Your task to perform on an android device: stop showing notifications on the lock screen Image 0: 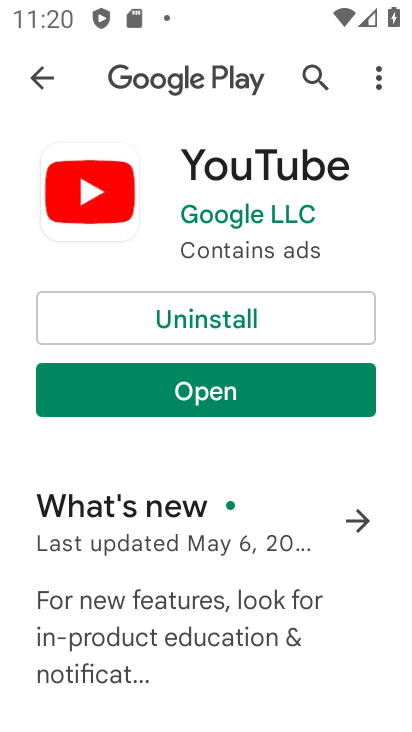
Step 0: press home button
Your task to perform on an android device: stop showing notifications on the lock screen Image 1: 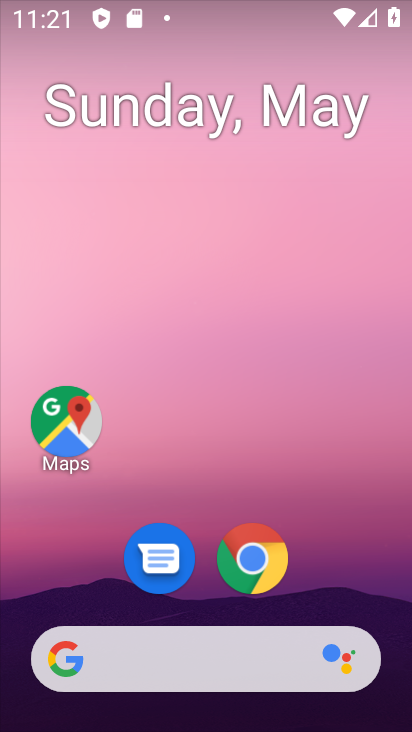
Step 1: drag from (370, 566) to (338, 135)
Your task to perform on an android device: stop showing notifications on the lock screen Image 2: 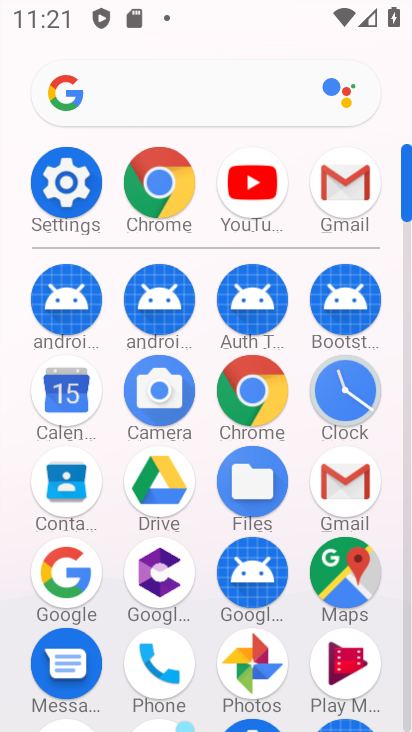
Step 2: click (71, 189)
Your task to perform on an android device: stop showing notifications on the lock screen Image 3: 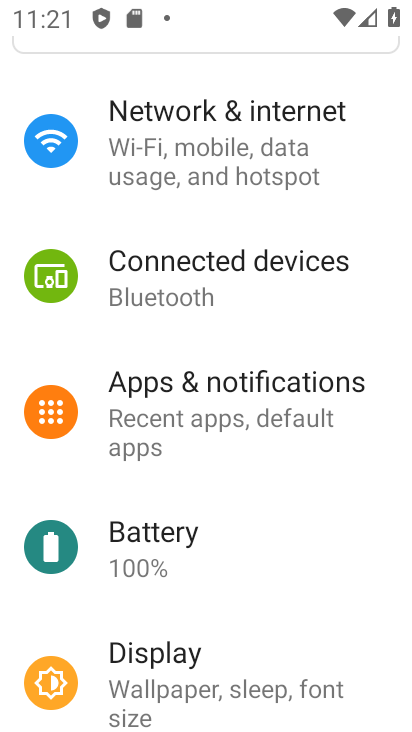
Step 3: click (196, 392)
Your task to perform on an android device: stop showing notifications on the lock screen Image 4: 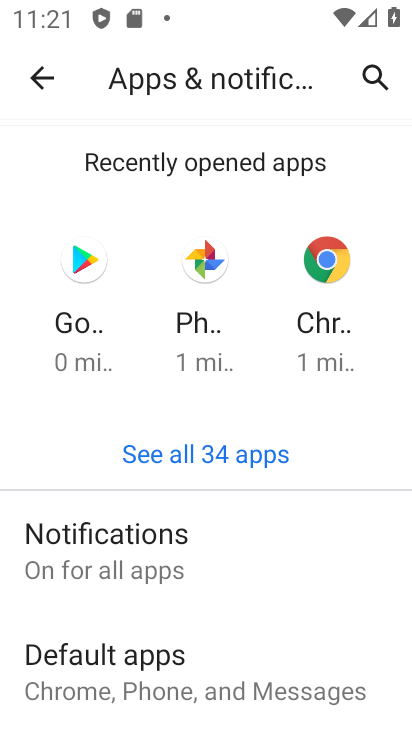
Step 4: click (128, 566)
Your task to perform on an android device: stop showing notifications on the lock screen Image 5: 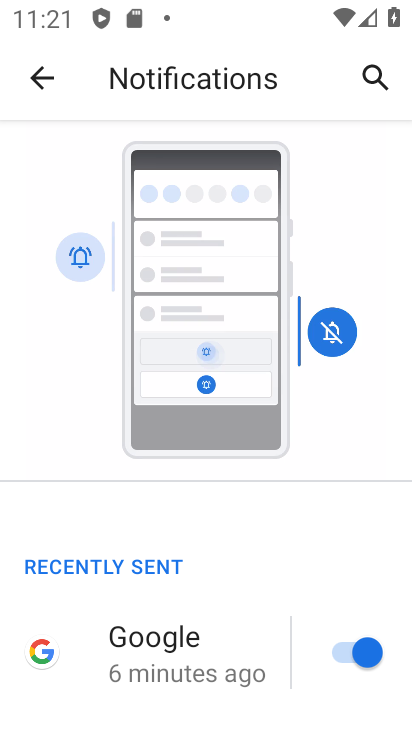
Step 5: drag from (263, 595) to (288, 443)
Your task to perform on an android device: stop showing notifications on the lock screen Image 6: 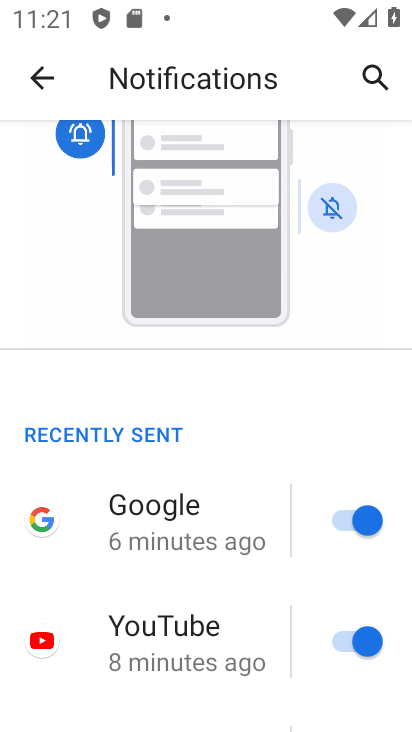
Step 6: drag from (286, 671) to (276, 469)
Your task to perform on an android device: stop showing notifications on the lock screen Image 7: 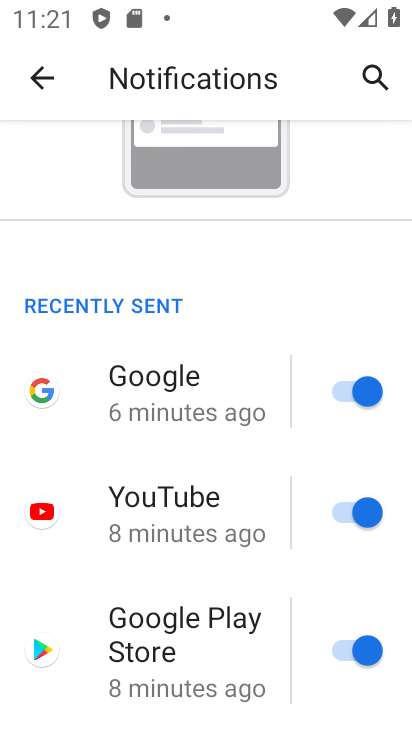
Step 7: drag from (263, 690) to (273, 483)
Your task to perform on an android device: stop showing notifications on the lock screen Image 8: 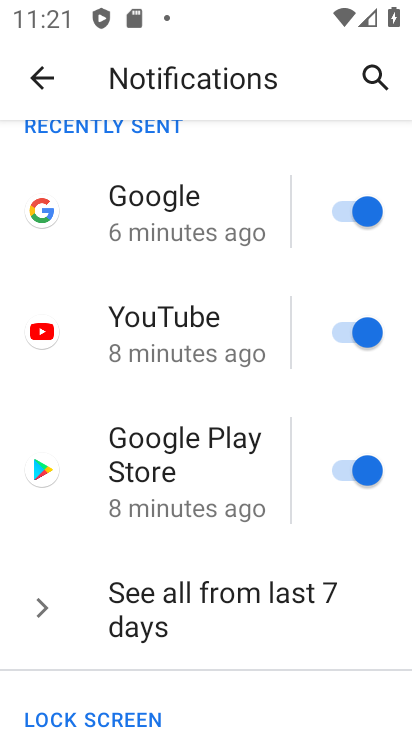
Step 8: drag from (282, 687) to (276, 468)
Your task to perform on an android device: stop showing notifications on the lock screen Image 9: 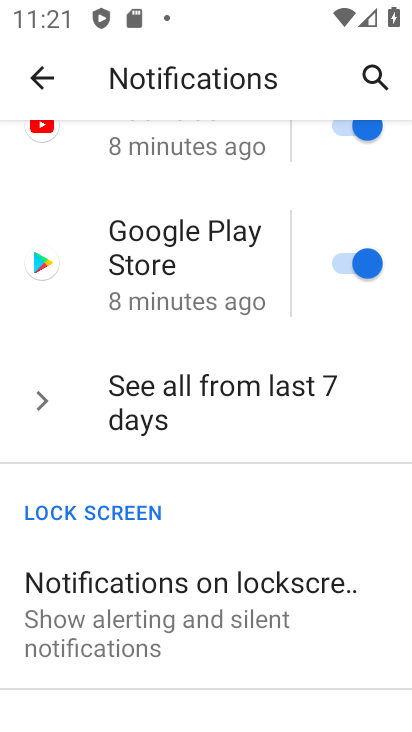
Step 9: drag from (305, 638) to (315, 451)
Your task to perform on an android device: stop showing notifications on the lock screen Image 10: 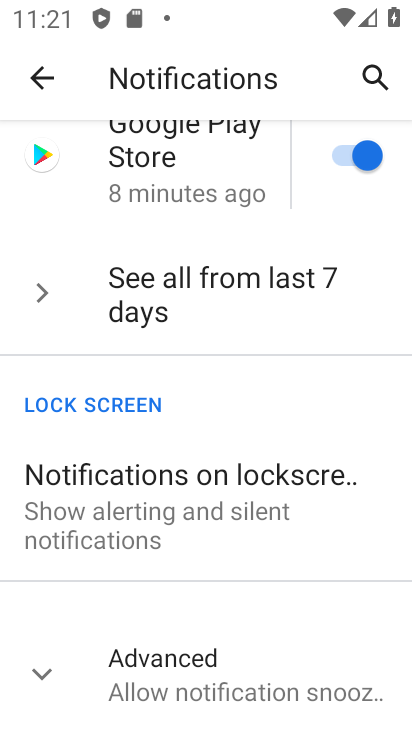
Step 10: click (255, 507)
Your task to perform on an android device: stop showing notifications on the lock screen Image 11: 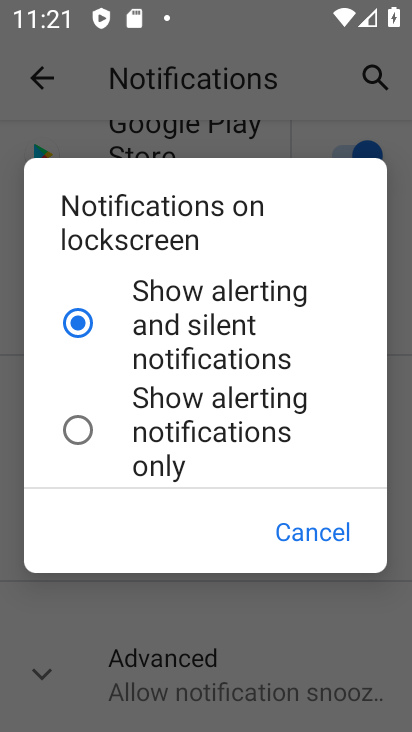
Step 11: task complete